Your task to perform on an android device: turn pop-ups off in chrome Image 0: 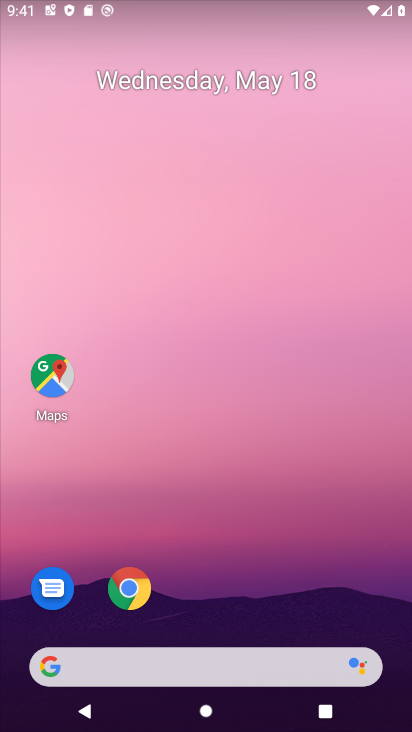
Step 0: drag from (303, 685) to (322, 161)
Your task to perform on an android device: turn pop-ups off in chrome Image 1: 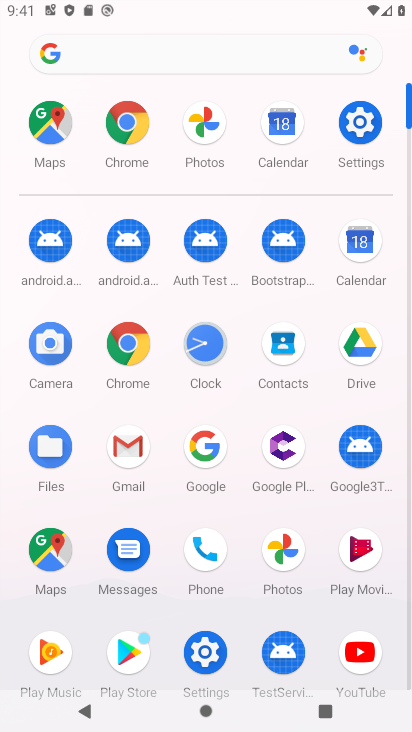
Step 1: click (127, 132)
Your task to perform on an android device: turn pop-ups off in chrome Image 2: 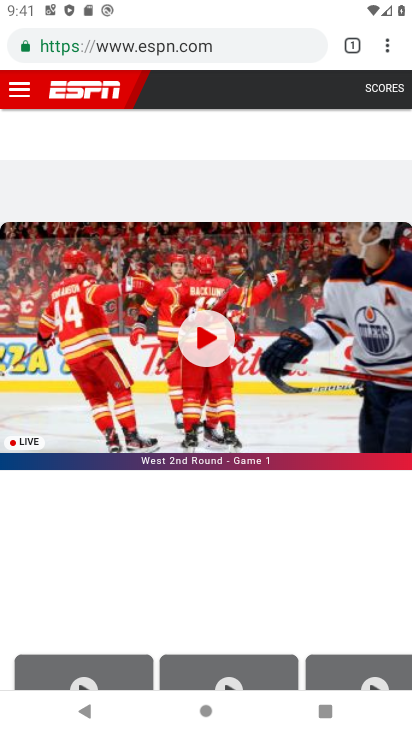
Step 2: click (386, 59)
Your task to perform on an android device: turn pop-ups off in chrome Image 3: 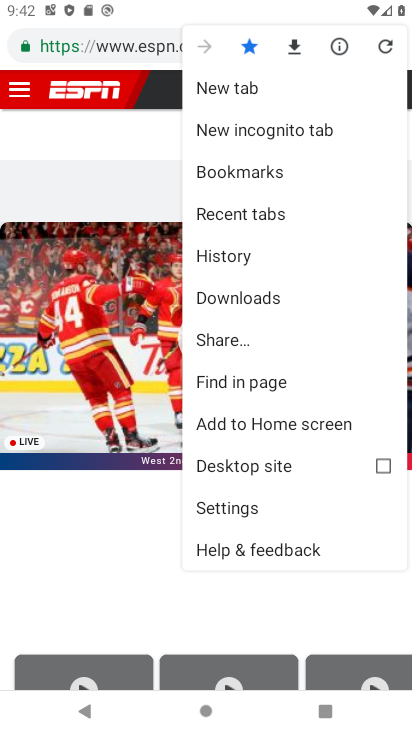
Step 3: click (249, 515)
Your task to perform on an android device: turn pop-ups off in chrome Image 4: 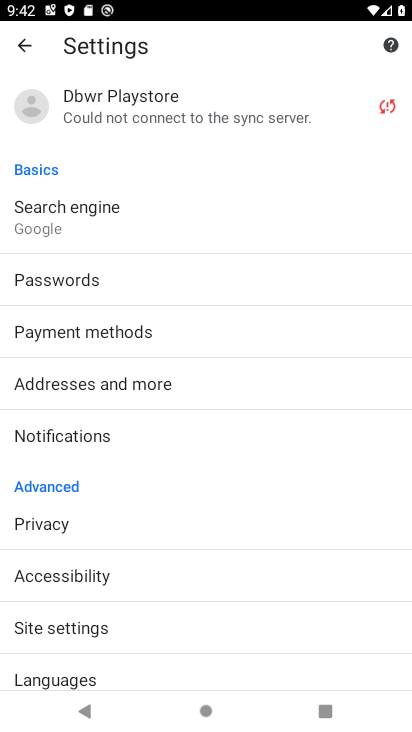
Step 4: click (58, 627)
Your task to perform on an android device: turn pop-ups off in chrome Image 5: 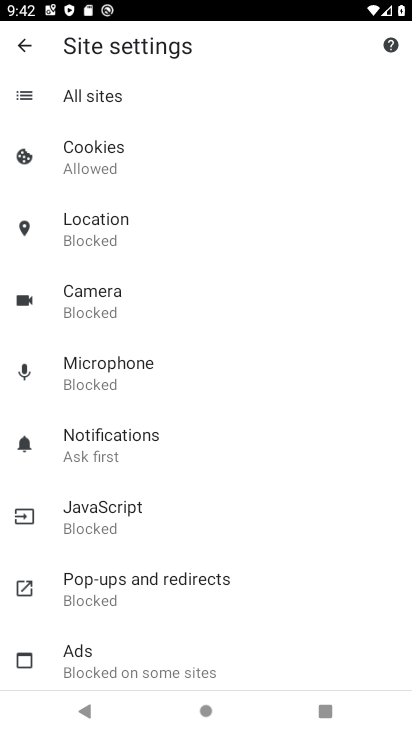
Step 5: click (105, 590)
Your task to perform on an android device: turn pop-ups off in chrome Image 6: 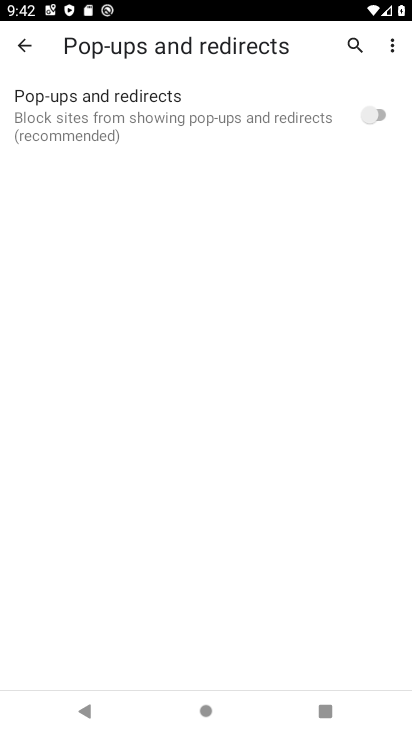
Step 6: click (368, 105)
Your task to perform on an android device: turn pop-ups off in chrome Image 7: 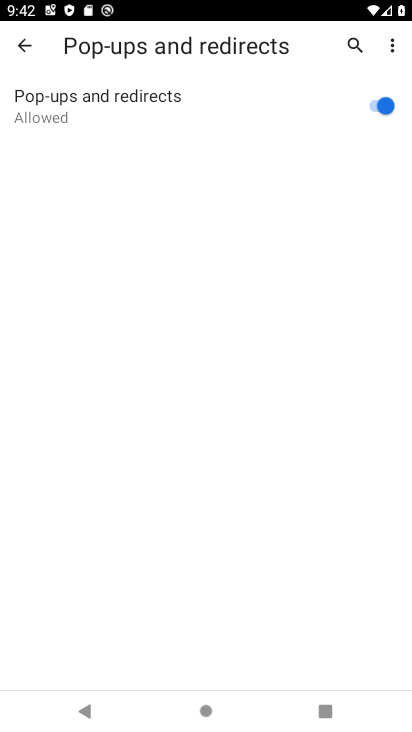
Step 7: click (369, 105)
Your task to perform on an android device: turn pop-ups off in chrome Image 8: 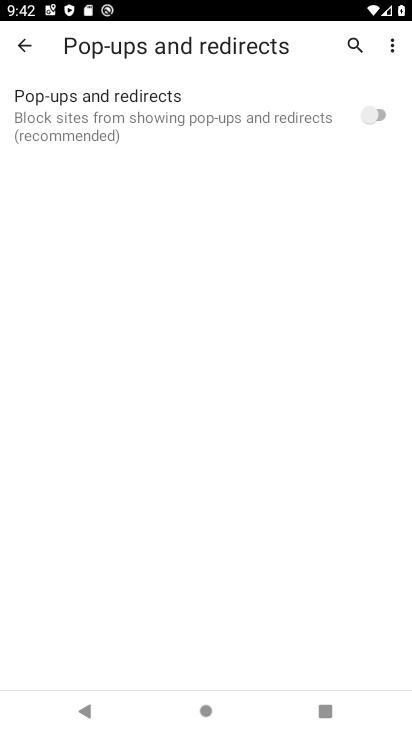
Step 8: task complete